Your task to perform on an android device: add a contact Image 0: 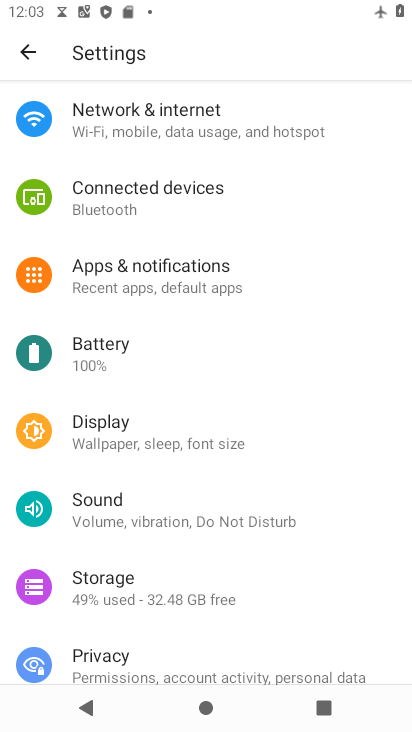
Step 0: press home button
Your task to perform on an android device: add a contact Image 1: 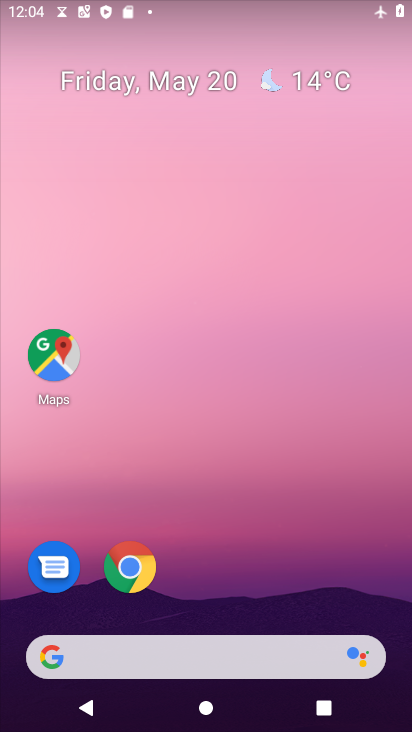
Step 1: drag from (307, 503) to (367, 1)
Your task to perform on an android device: add a contact Image 2: 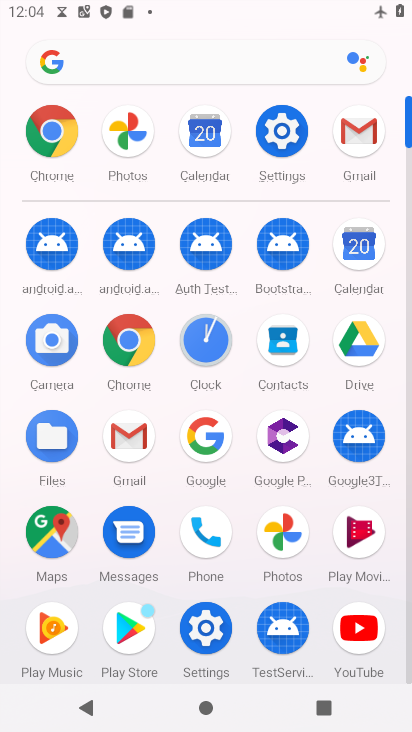
Step 2: click (385, 245)
Your task to perform on an android device: add a contact Image 3: 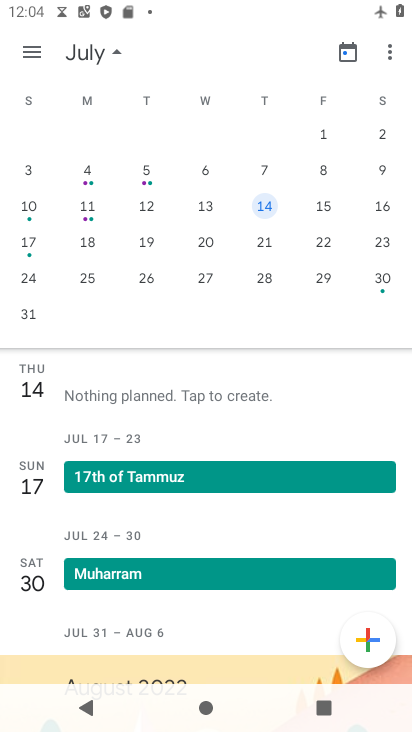
Step 3: press home button
Your task to perform on an android device: add a contact Image 4: 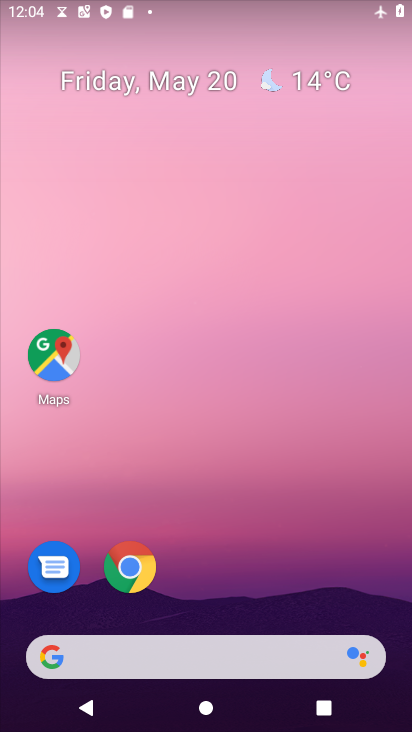
Step 4: drag from (366, 574) to (392, 365)
Your task to perform on an android device: add a contact Image 5: 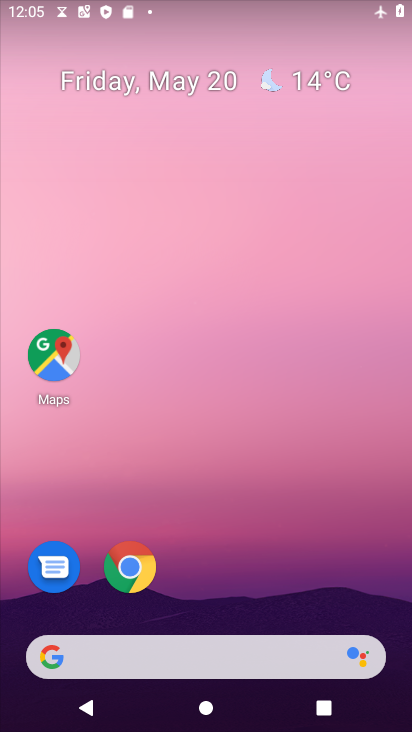
Step 5: drag from (266, 572) to (282, 18)
Your task to perform on an android device: add a contact Image 6: 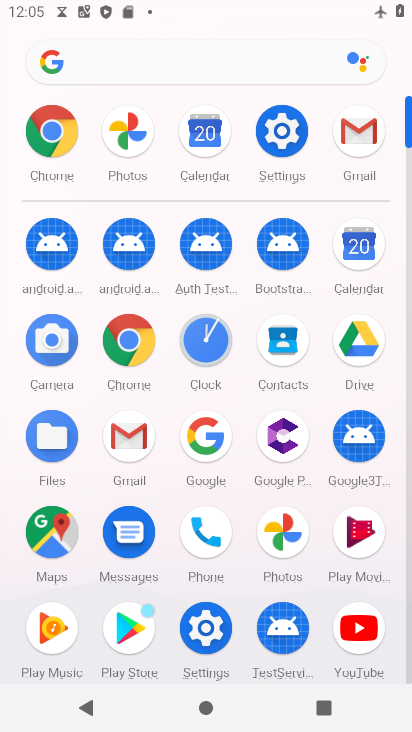
Step 6: click (217, 533)
Your task to perform on an android device: add a contact Image 7: 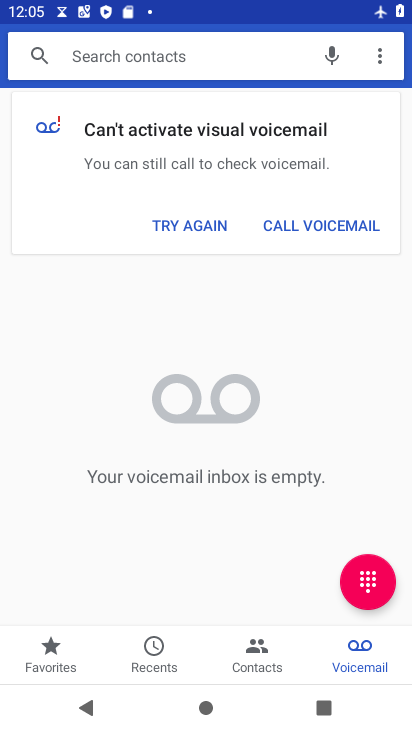
Step 7: click (245, 661)
Your task to perform on an android device: add a contact Image 8: 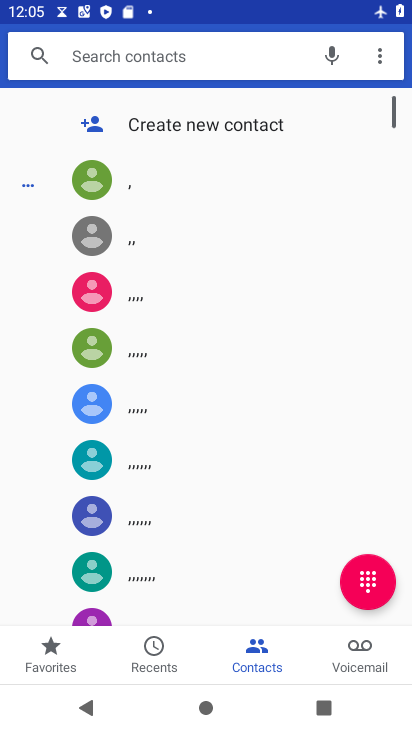
Step 8: click (193, 131)
Your task to perform on an android device: add a contact Image 9: 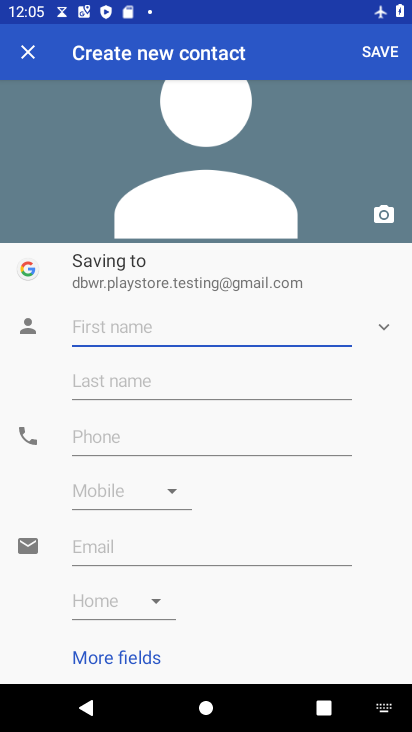
Step 9: type "yryryryryryr"
Your task to perform on an android device: add a contact Image 10: 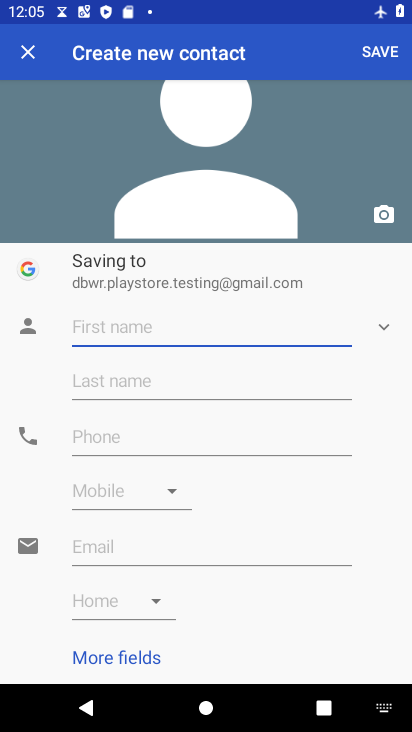
Step 10: click (128, 442)
Your task to perform on an android device: add a contact Image 11: 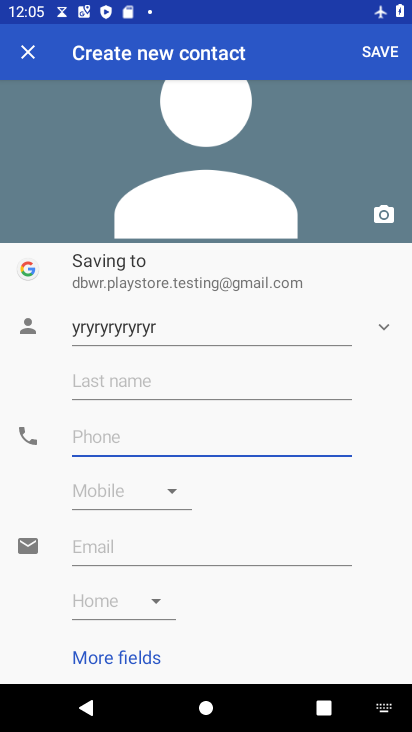
Step 11: type "456787545678"
Your task to perform on an android device: add a contact Image 12: 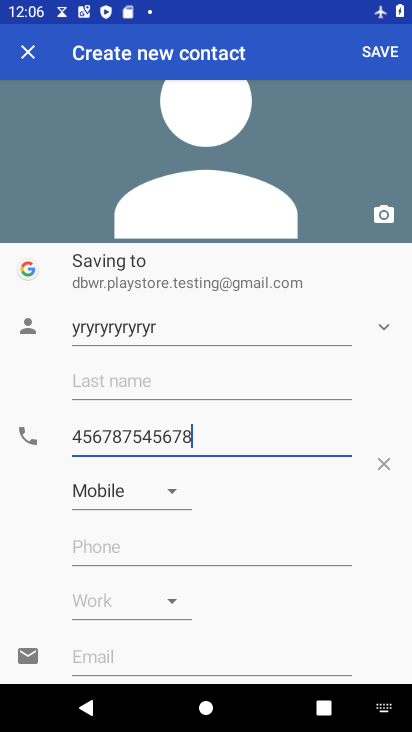
Step 12: click (368, 56)
Your task to perform on an android device: add a contact Image 13: 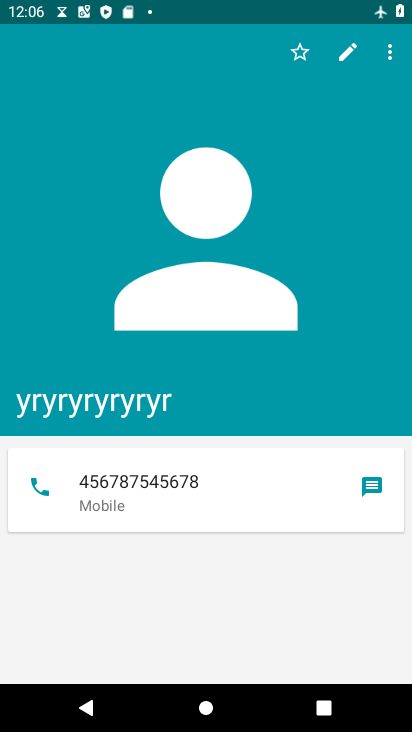
Step 13: task complete